Your task to perform on an android device: Do I have any events tomorrow? Image 0: 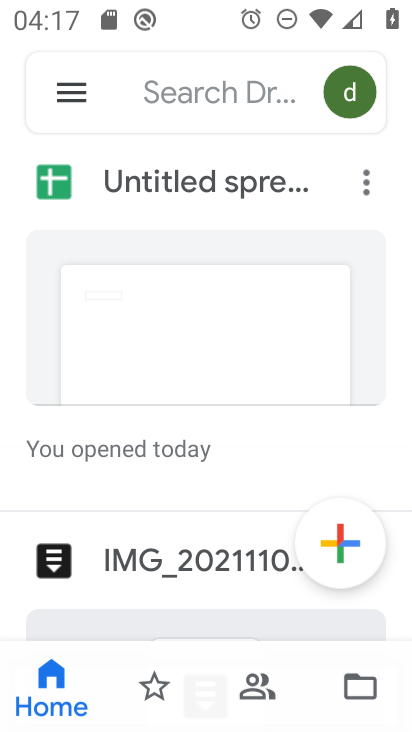
Step 0: press home button
Your task to perform on an android device: Do I have any events tomorrow? Image 1: 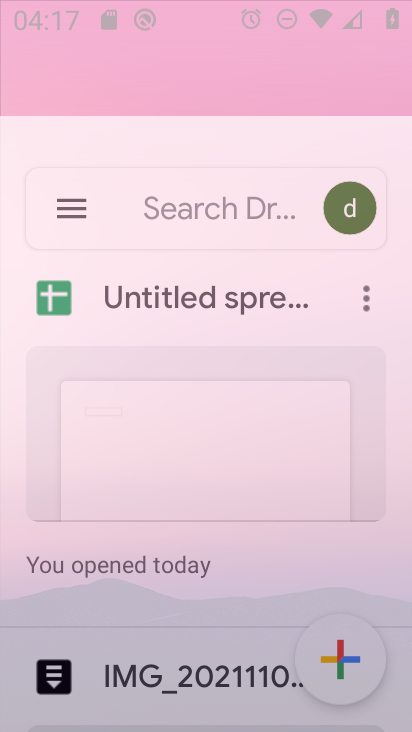
Step 1: press home button
Your task to perform on an android device: Do I have any events tomorrow? Image 2: 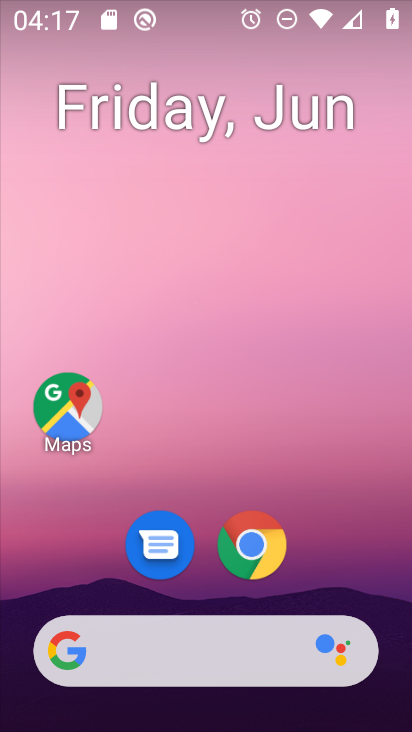
Step 2: click (326, 24)
Your task to perform on an android device: Do I have any events tomorrow? Image 3: 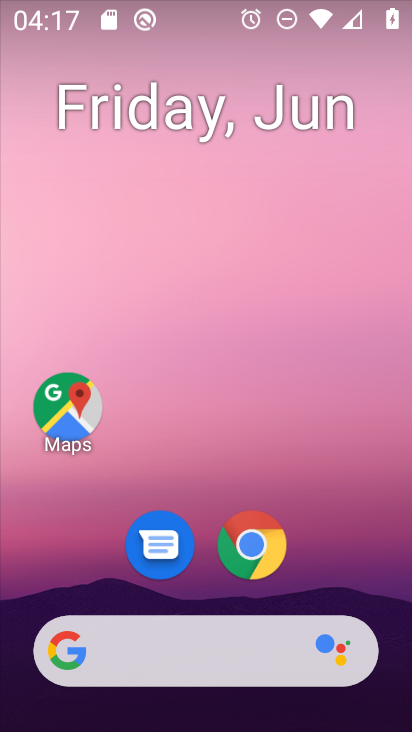
Step 3: drag from (325, 490) to (273, 0)
Your task to perform on an android device: Do I have any events tomorrow? Image 4: 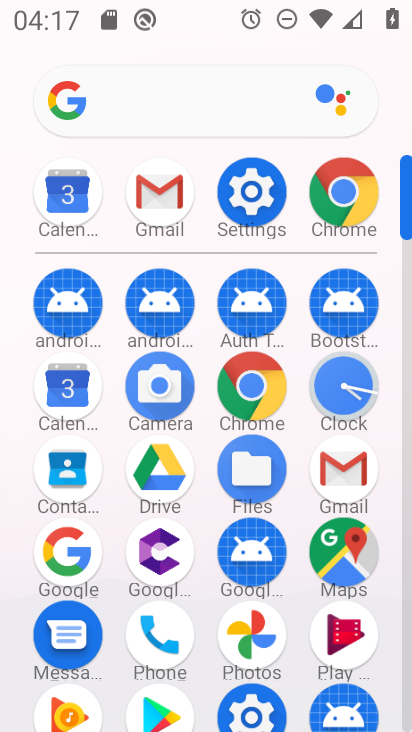
Step 4: click (50, 375)
Your task to perform on an android device: Do I have any events tomorrow? Image 5: 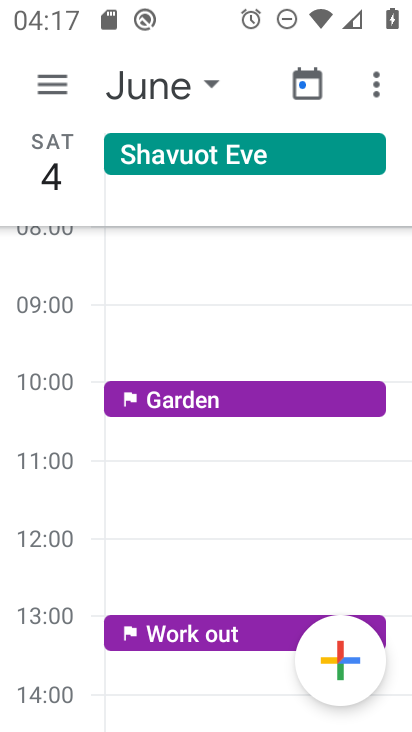
Step 5: click (52, 79)
Your task to perform on an android device: Do I have any events tomorrow? Image 6: 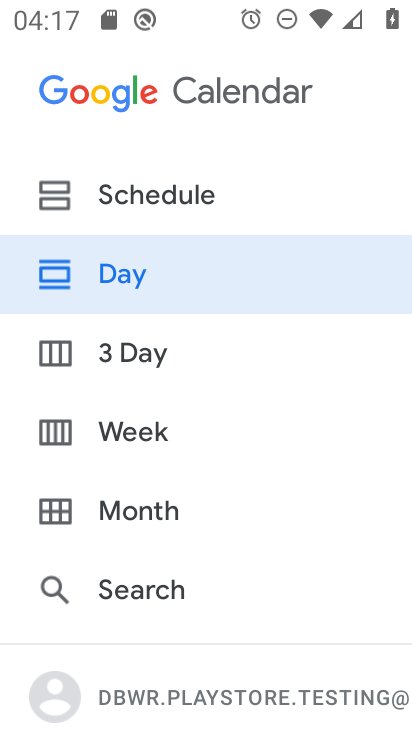
Step 6: click (157, 187)
Your task to perform on an android device: Do I have any events tomorrow? Image 7: 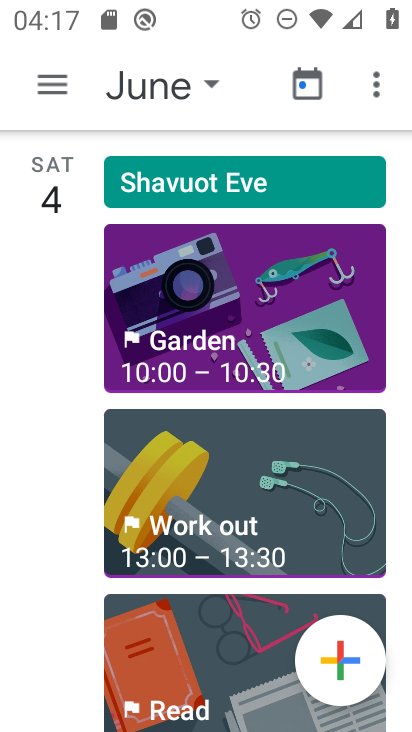
Step 7: click (185, 91)
Your task to perform on an android device: Do I have any events tomorrow? Image 8: 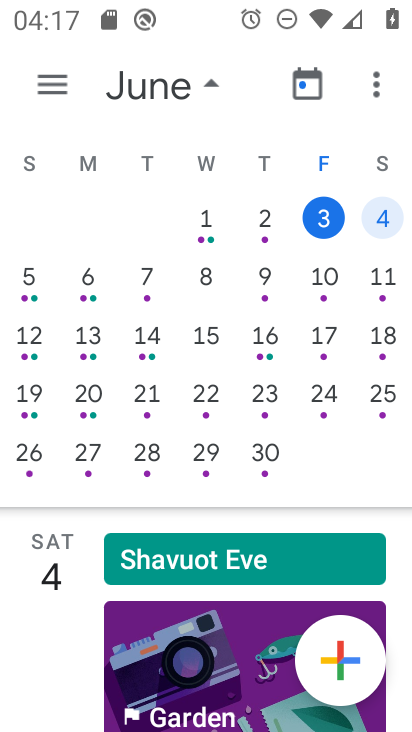
Step 8: click (392, 223)
Your task to perform on an android device: Do I have any events tomorrow? Image 9: 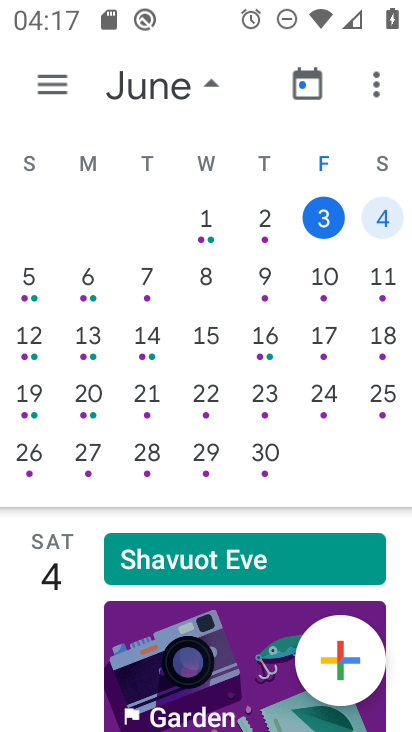
Step 9: task complete